Your task to perform on an android device: set an alarm Image 0: 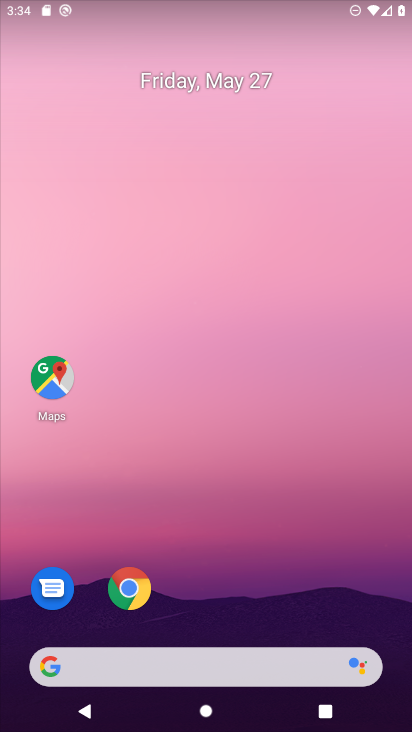
Step 0: drag from (301, 607) to (187, 11)
Your task to perform on an android device: set an alarm Image 1: 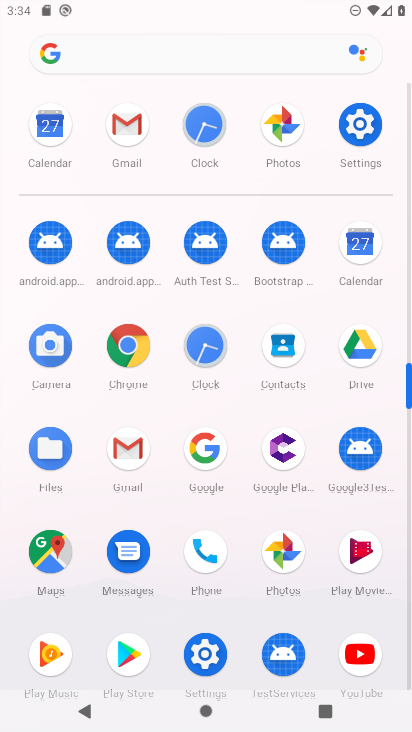
Step 1: click (204, 114)
Your task to perform on an android device: set an alarm Image 2: 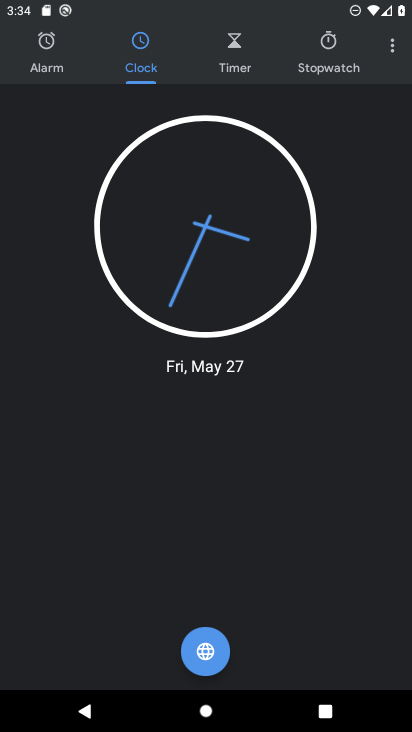
Step 2: click (66, 57)
Your task to perform on an android device: set an alarm Image 3: 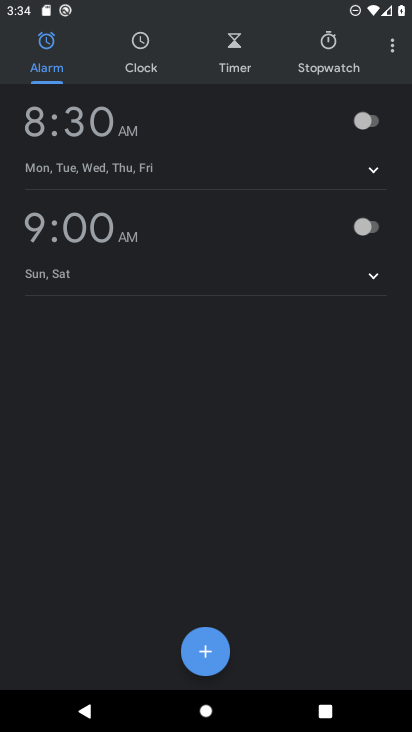
Step 3: click (370, 227)
Your task to perform on an android device: set an alarm Image 4: 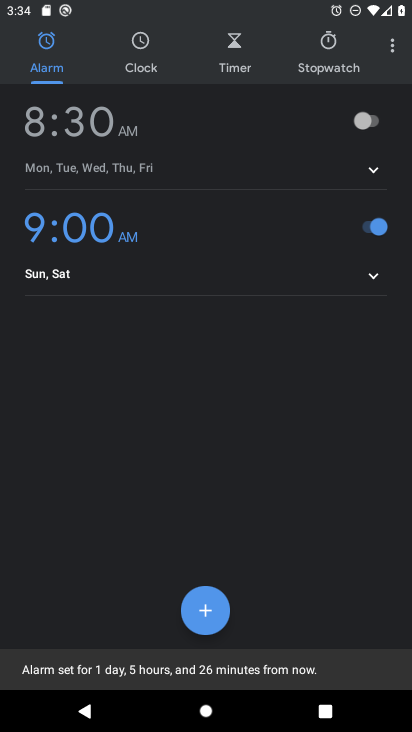
Step 4: task complete